Your task to perform on an android device: change the clock display to show seconds Image 0: 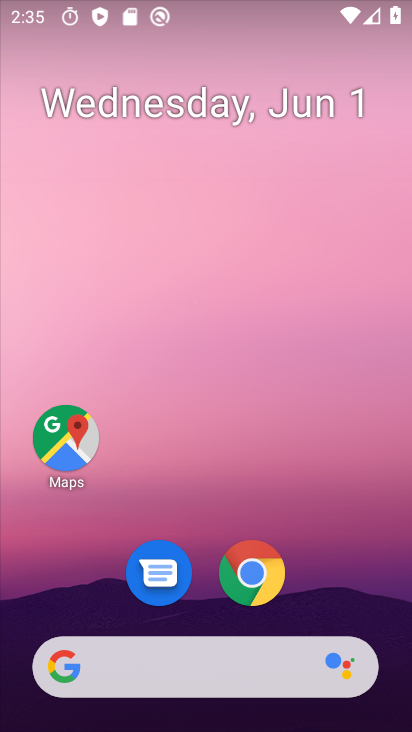
Step 0: drag from (214, 607) to (214, 87)
Your task to perform on an android device: change the clock display to show seconds Image 1: 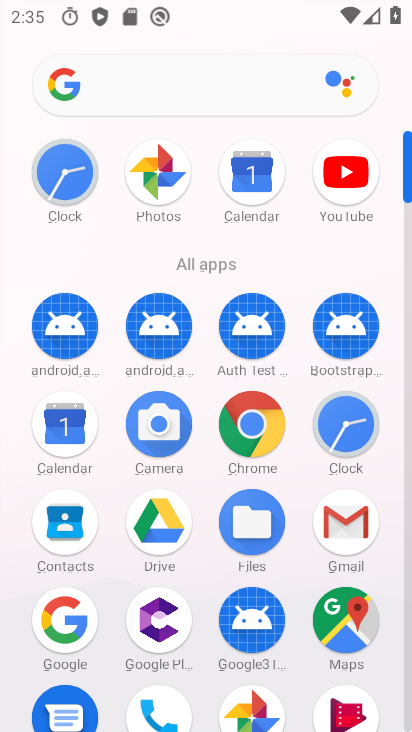
Step 1: click (344, 404)
Your task to perform on an android device: change the clock display to show seconds Image 2: 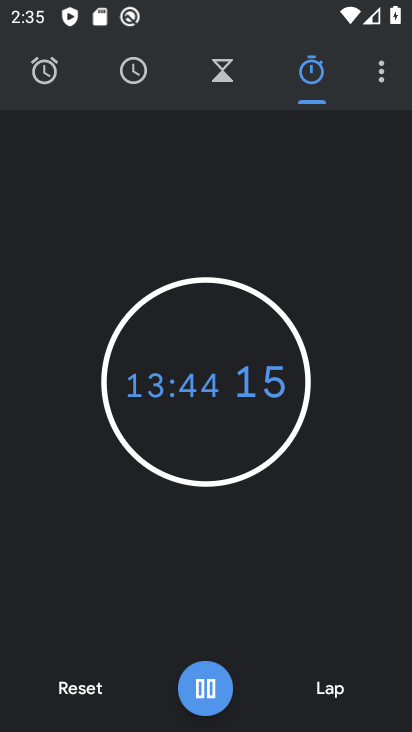
Step 2: click (377, 80)
Your task to perform on an android device: change the clock display to show seconds Image 3: 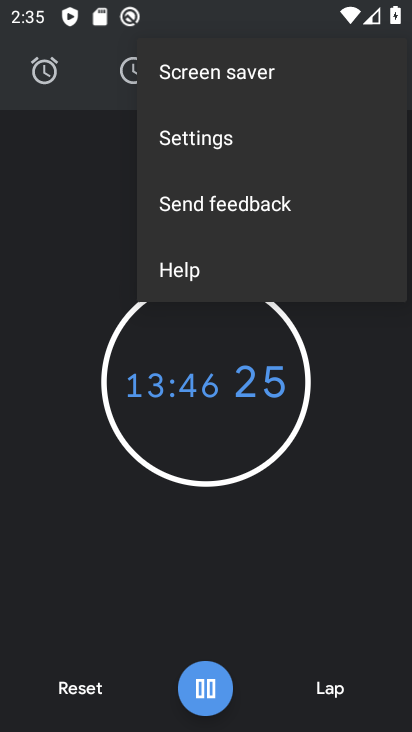
Step 3: click (290, 136)
Your task to perform on an android device: change the clock display to show seconds Image 4: 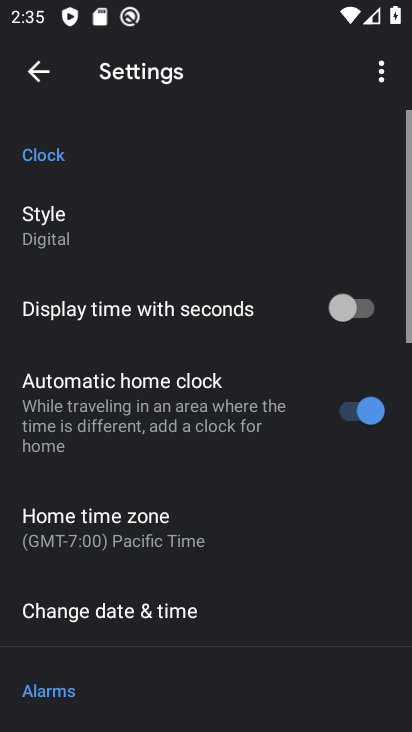
Step 4: click (365, 307)
Your task to perform on an android device: change the clock display to show seconds Image 5: 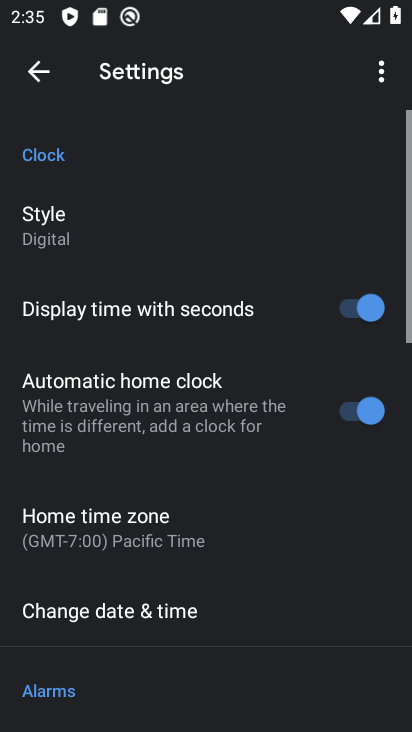
Step 5: task complete